Your task to perform on an android device: turn off location history Image 0: 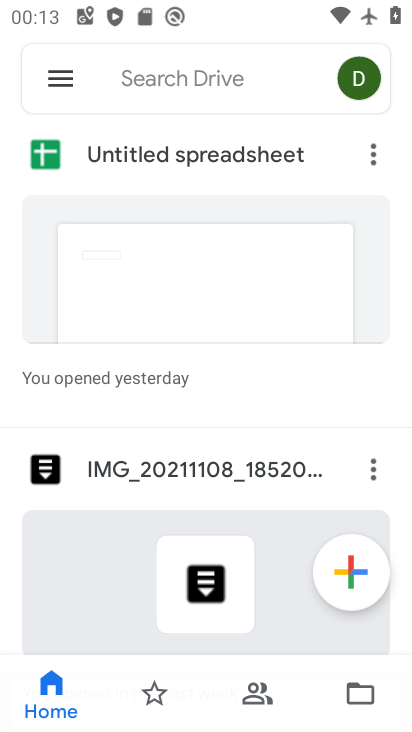
Step 0: press home button
Your task to perform on an android device: turn off location history Image 1: 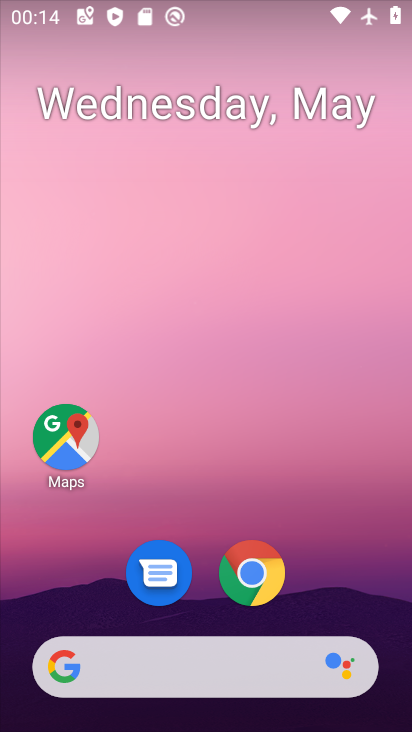
Step 1: drag from (316, 469) to (291, 171)
Your task to perform on an android device: turn off location history Image 2: 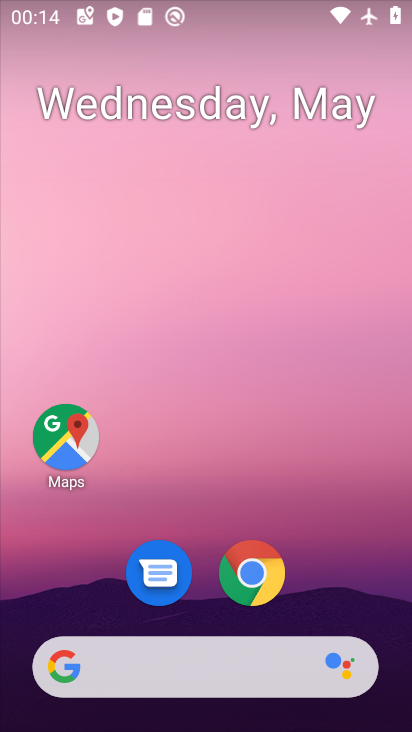
Step 2: drag from (351, 587) to (309, 251)
Your task to perform on an android device: turn off location history Image 3: 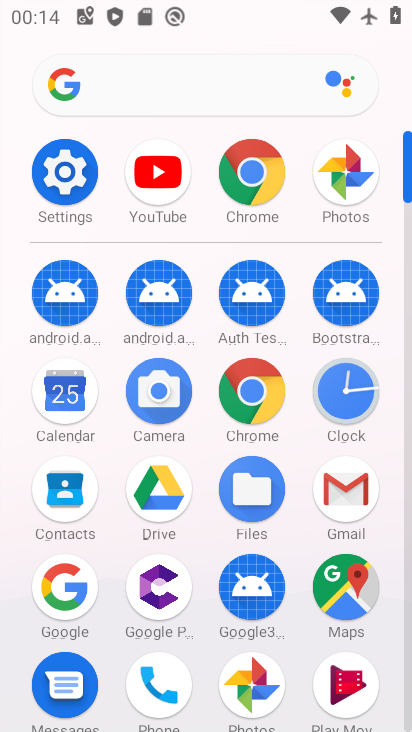
Step 3: click (73, 168)
Your task to perform on an android device: turn off location history Image 4: 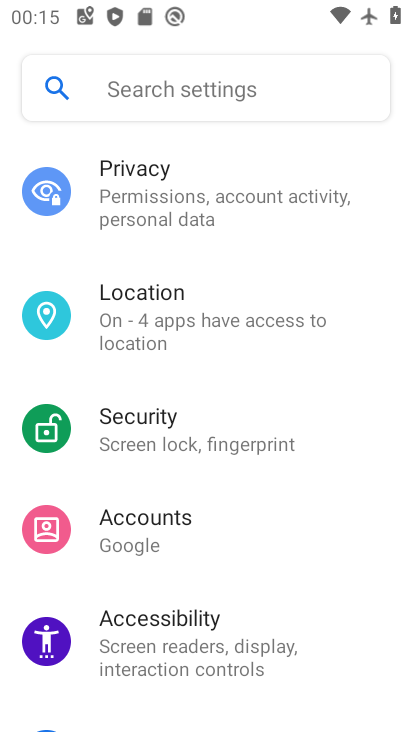
Step 4: drag from (292, 510) to (281, 271)
Your task to perform on an android device: turn off location history Image 5: 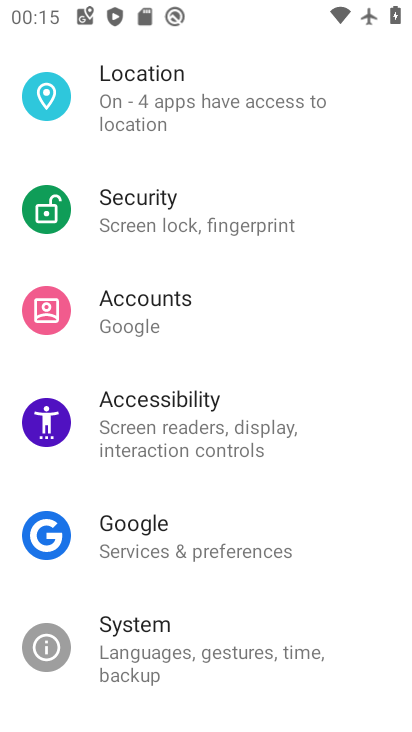
Step 5: click (196, 207)
Your task to perform on an android device: turn off location history Image 6: 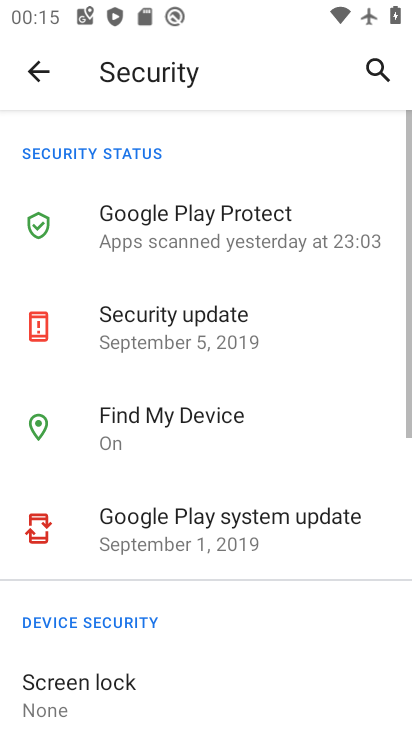
Step 6: drag from (190, 635) to (215, 256)
Your task to perform on an android device: turn off location history Image 7: 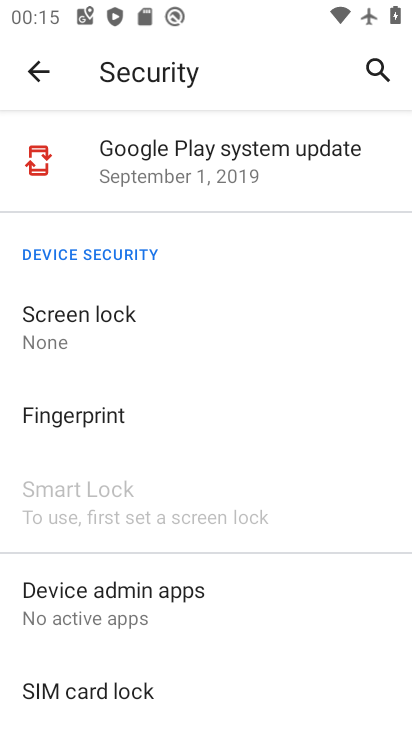
Step 7: drag from (168, 641) to (212, 339)
Your task to perform on an android device: turn off location history Image 8: 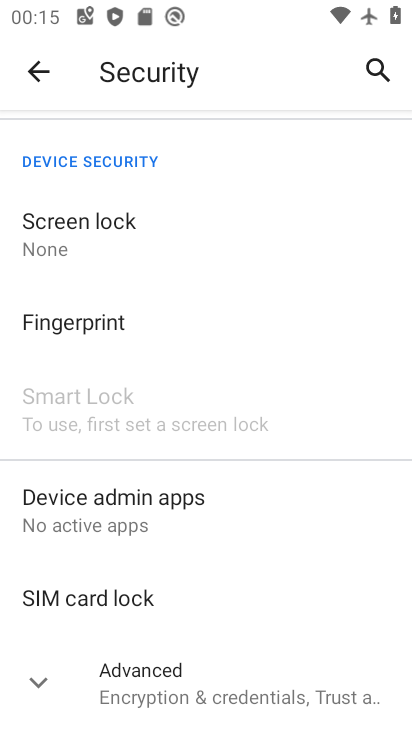
Step 8: drag from (186, 534) to (190, 288)
Your task to perform on an android device: turn off location history Image 9: 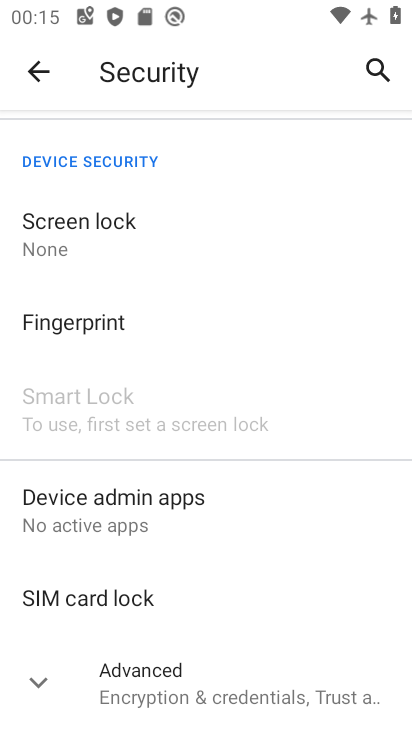
Step 9: click (184, 681)
Your task to perform on an android device: turn off location history Image 10: 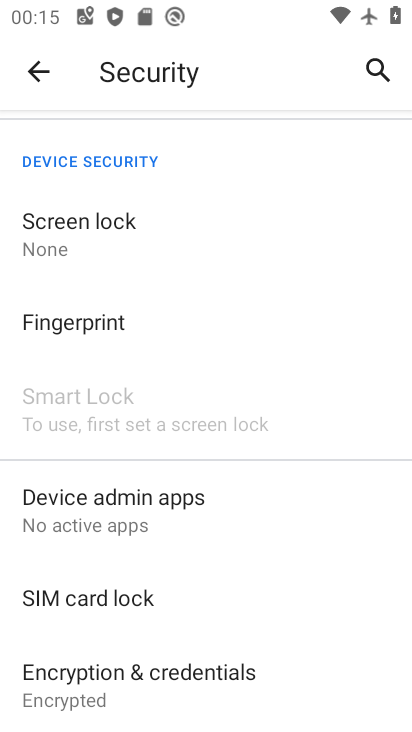
Step 10: task complete